Your task to perform on an android device: turn off translation in the chrome app Image 0: 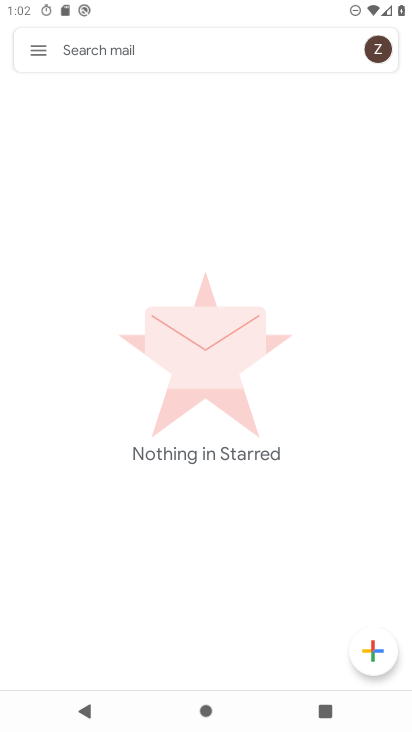
Step 0: press home button
Your task to perform on an android device: turn off translation in the chrome app Image 1: 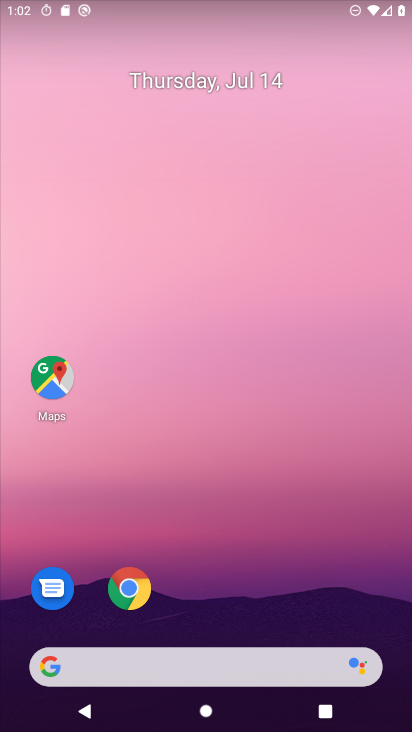
Step 1: click (132, 591)
Your task to perform on an android device: turn off translation in the chrome app Image 2: 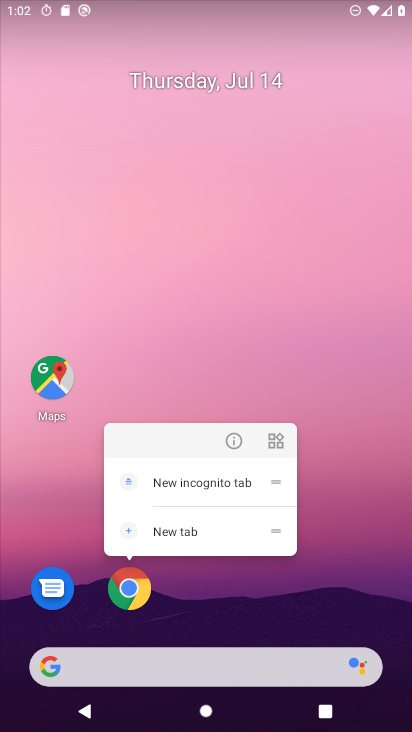
Step 2: click (137, 588)
Your task to perform on an android device: turn off translation in the chrome app Image 3: 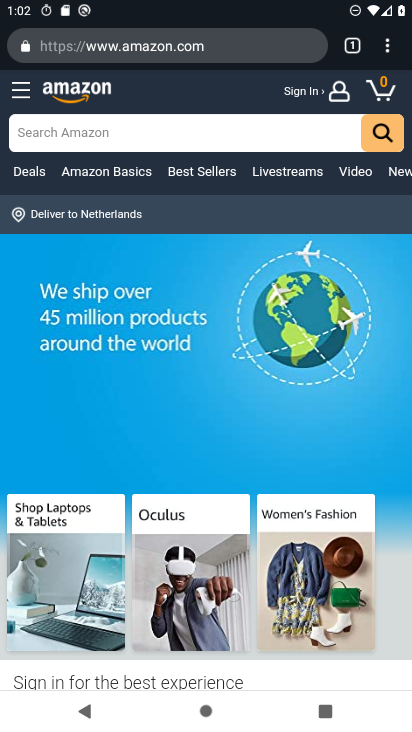
Step 3: drag from (386, 48) to (306, 606)
Your task to perform on an android device: turn off translation in the chrome app Image 4: 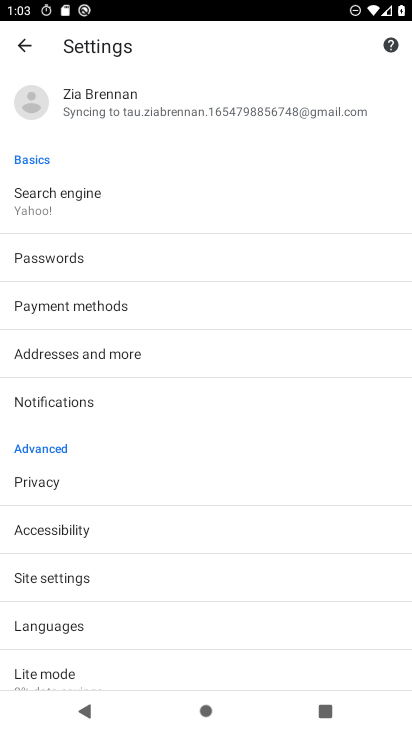
Step 4: click (93, 631)
Your task to perform on an android device: turn off translation in the chrome app Image 5: 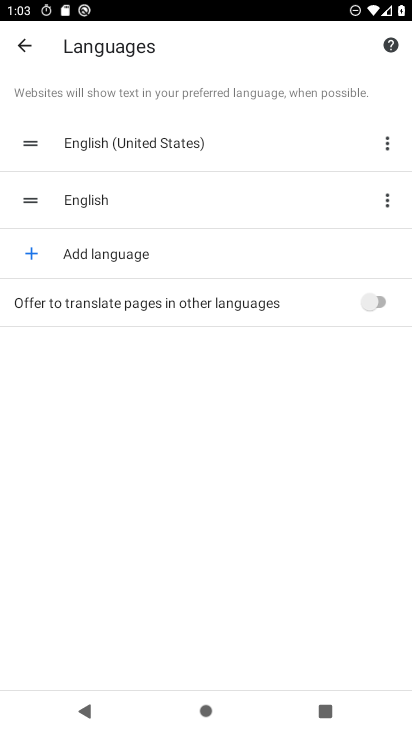
Step 5: task complete